Your task to perform on an android device: toggle location history Image 0: 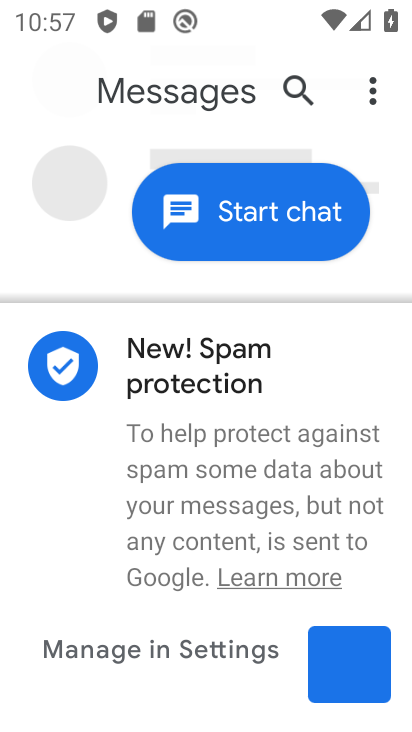
Step 0: drag from (378, 594) to (387, 104)
Your task to perform on an android device: toggle location history Image 1: 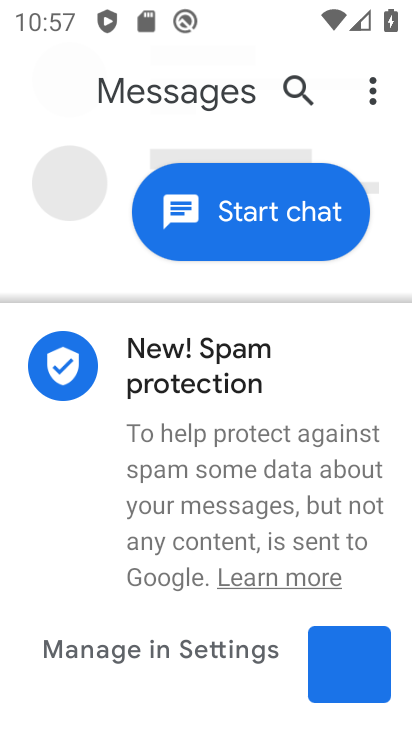
Step 1: press home button
Your task to perform on an android device: toggle location history Image 2: 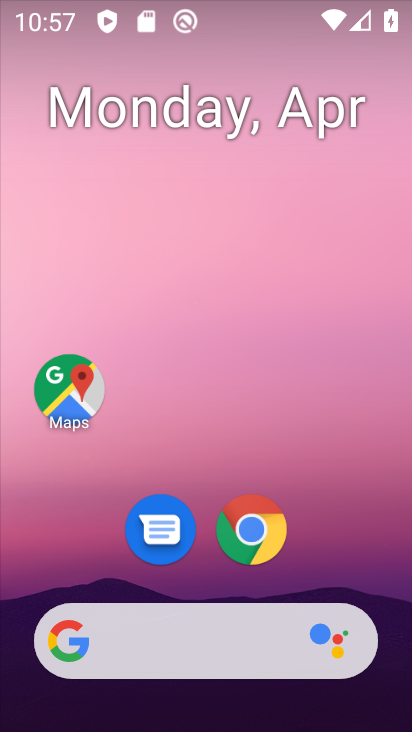
Step 2: drag from (372, 596) to (211, 15)
Your task to perform on an android device: toggle location history Image 3: 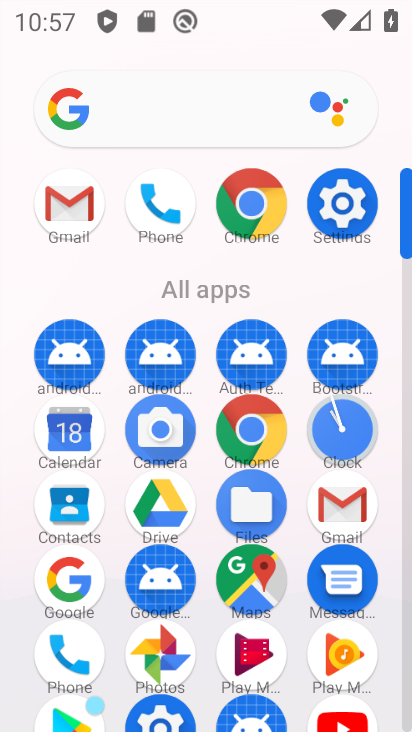
Step 3: click (334, 212)
Your task to perform on an android device: toggle location history Image 4: 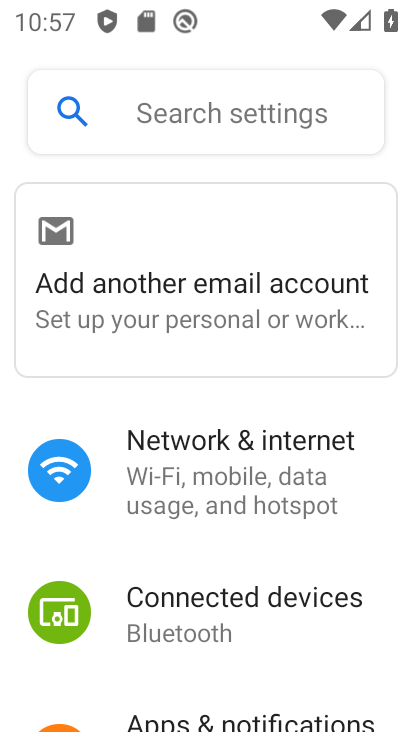
Step 4: drag from (130, 579) to (186, 76)
Your task to perform on an android device: toggle location history Image 5: 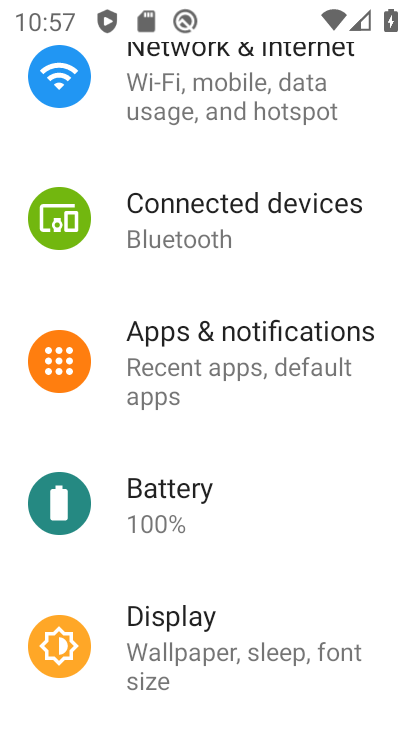
Step 5: drag from (217, 568) to (229, 145)
Your task to perform on an android device: toggle location history Image 6: 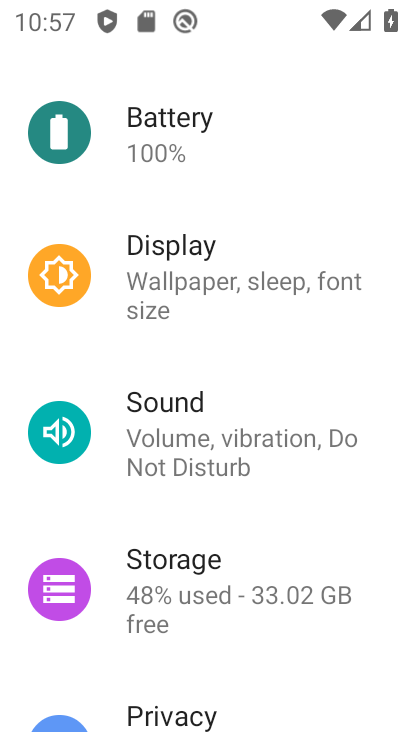
Step 6: drag from (188, 560) to (224, 145)
Your task to perform on an android device: toggle location history Image 7: 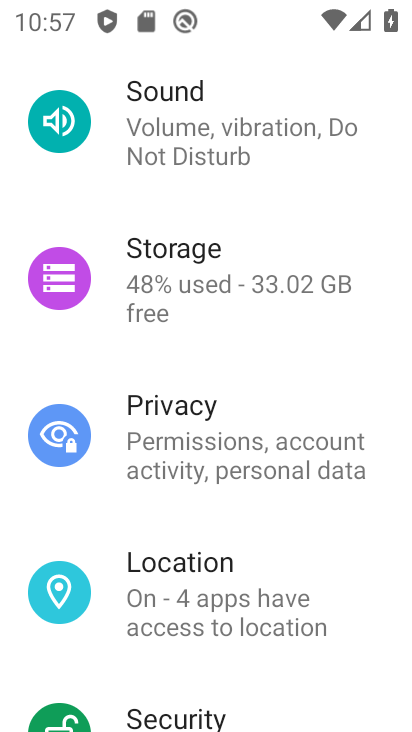
Step 7: click (179, 607)
Your task to perform on an android device: toggle location history Image 8: 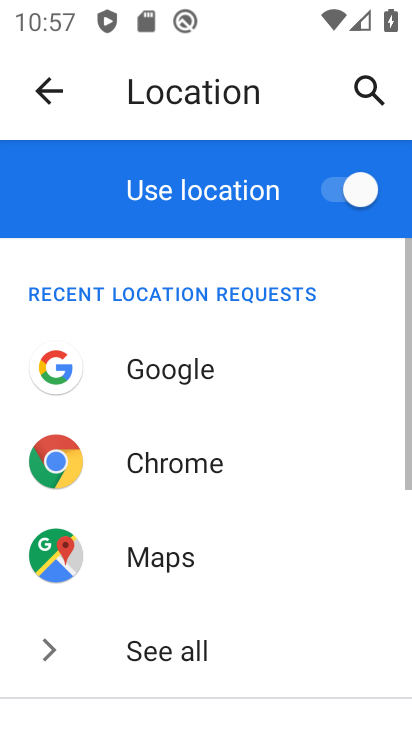
Step 8: drag from (200, 572) to (198, 115)
Your task to perform on an android device: toggle location history Image 9: 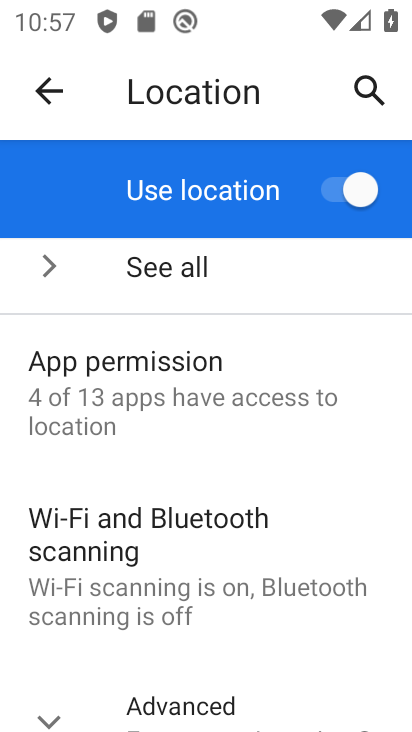
Step 9: drag from (145, 603) to (221, 192)
Your task to perform on an android device: toggle location history Image 10: 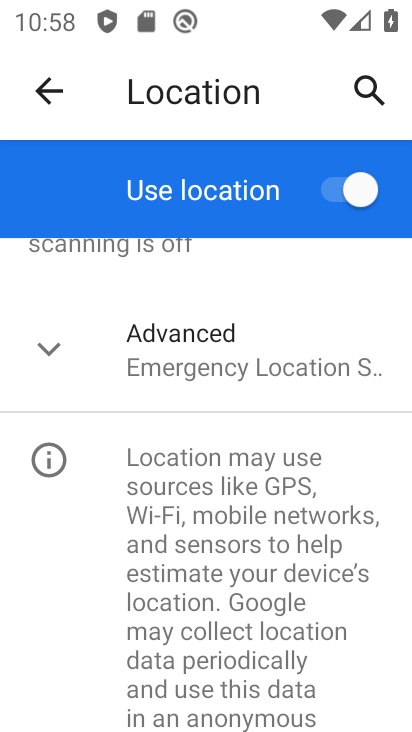
Step 10: click (49, 350)
Your task to perform on an android device: toggle location history Image 11: 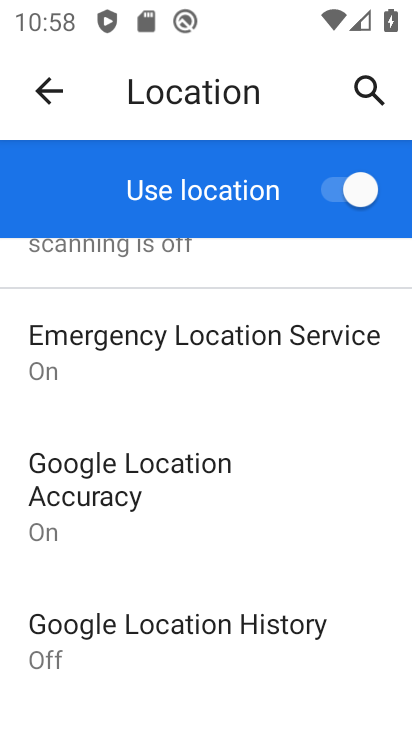
Step 11: click (224, 615)
Your task to perform on an android device: toggle location history Image 12: 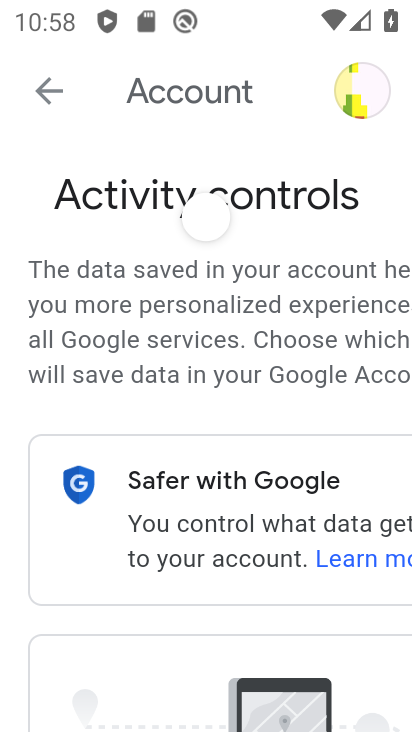
Step 12: drag from (295, 609) to (139, 66)
Your task to perform on an android device: toggle location history Image 13: 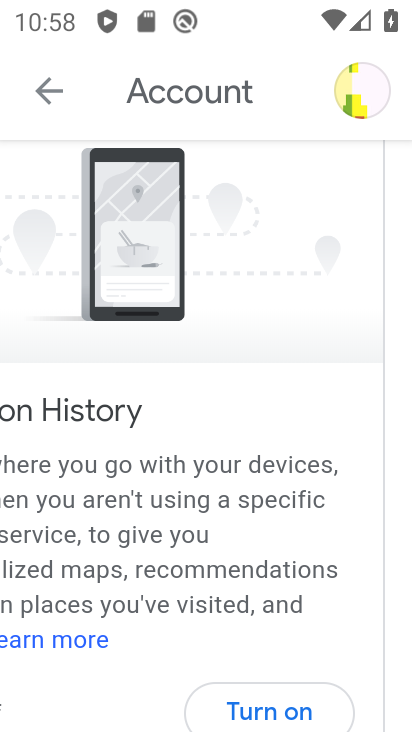
Step 13: click (266, 713)
Your task to perform on an android device: toggle location history Image 14: 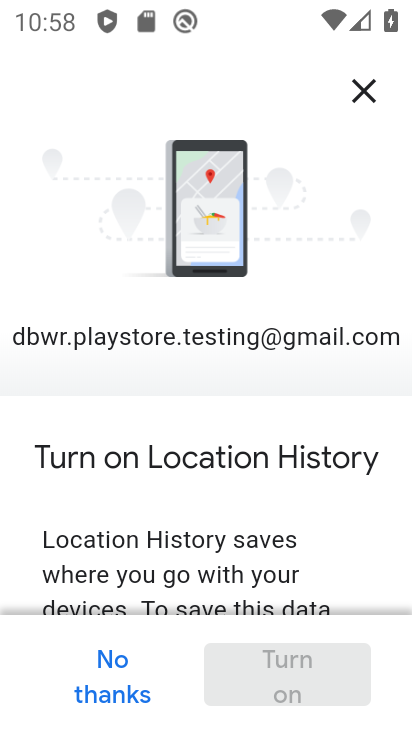
Step 14: task complete